Your task to perform on an android device: Go to Reddit.com Image 0: 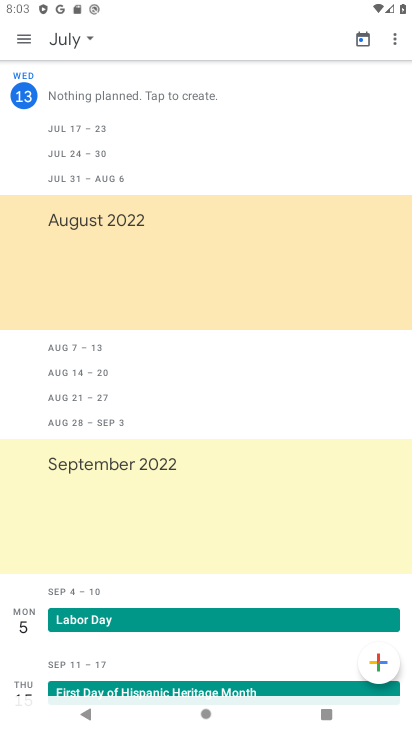
Step 0: press back button
Your task to perform on an android device: Go to Reddit.com Image 1: 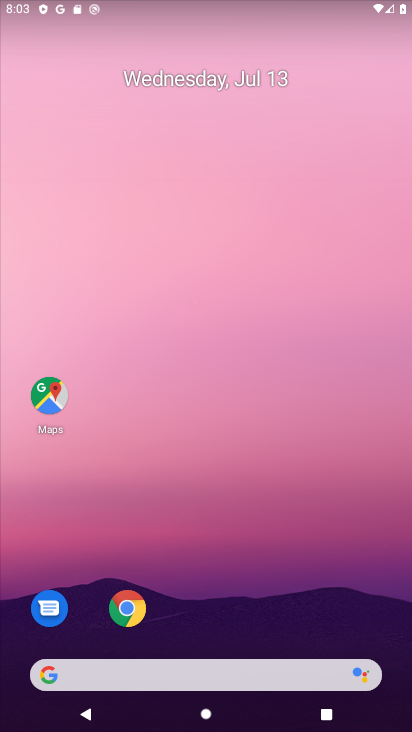
Step 1: drag from (240, 526) to (199, 141)
Your task to perform on an android device: Go to Reddit.com Image 2: 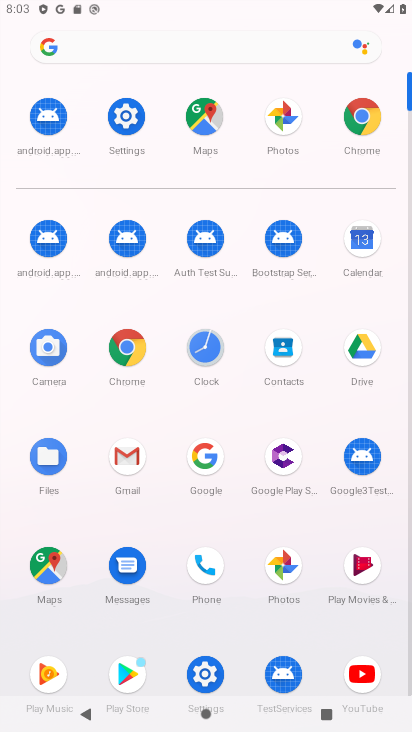
Step 2: click (358, 115)
Your task to perform on an android device: Go to Reddit.com Image 3: 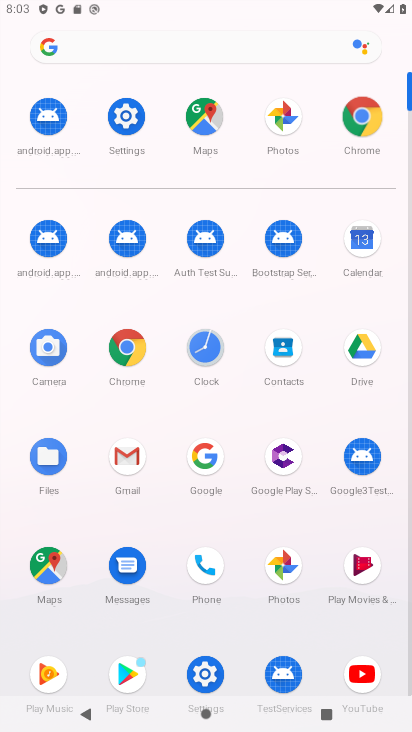
Step 3: click (358, 115)
Your task to perform on an android device: Go to Reddit.com Image 4: 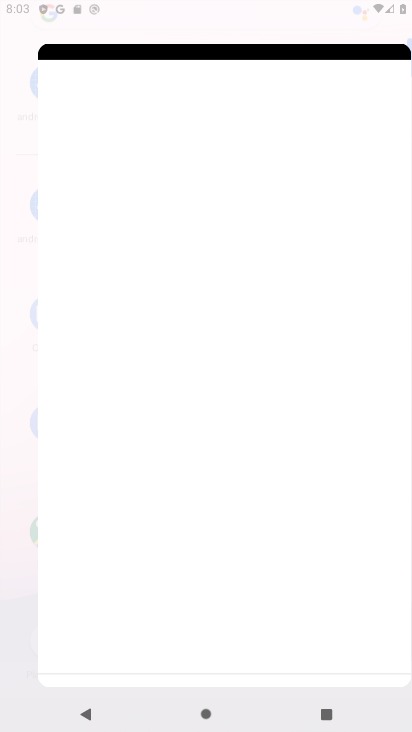
Step 4: click (358, 115)
Your task to perform on an android device: Go to Reddit.com Image 5: 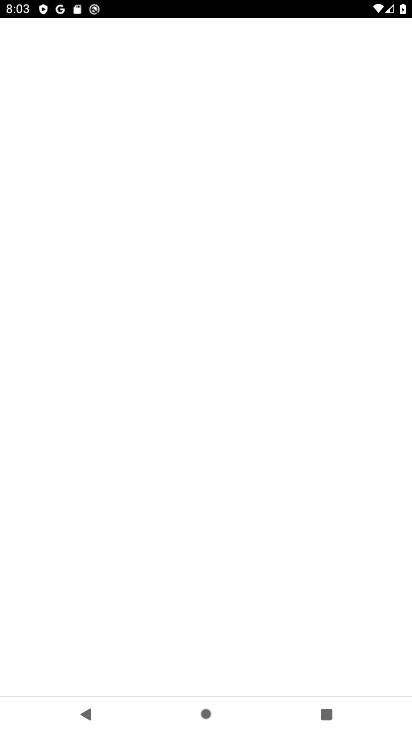
Step 5: click (358, 115)
Your task to perform on an android device: Go to Reddit.com Image 6: 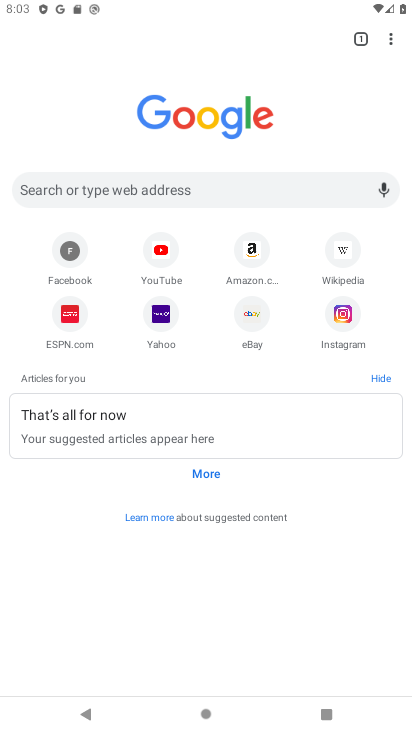
Step 6: click (81, 181)
Your task to perform on an android device: Go to Reddit.com Image 7: 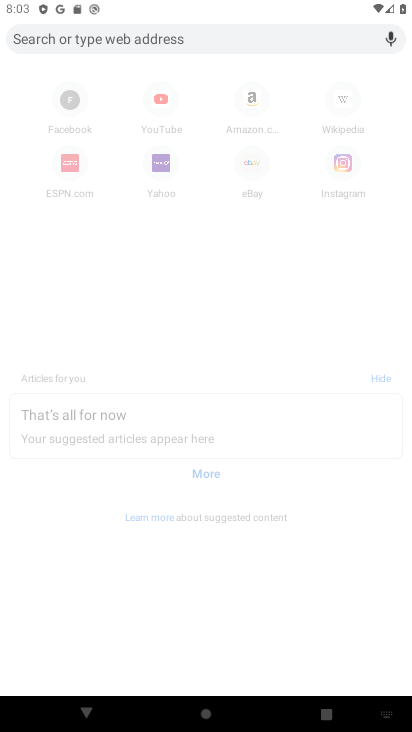
Step 7: type "reddit.com"
Your task to perform on an android device: Go to Reddit.com Image 8: 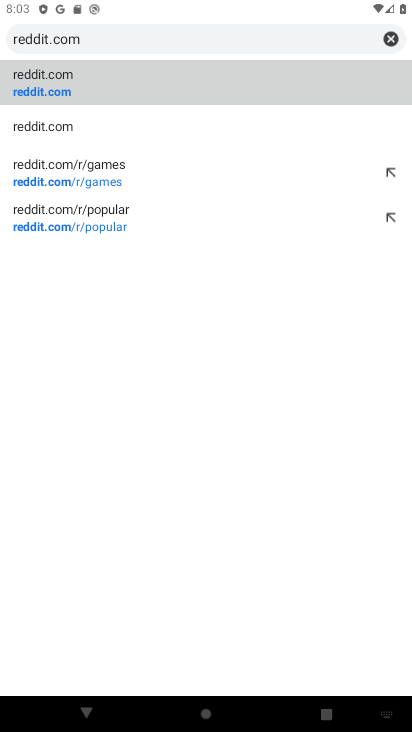
Step 8: click (37, 94)
Your task to perform on an android device: Go to Reddit.com Image 9: 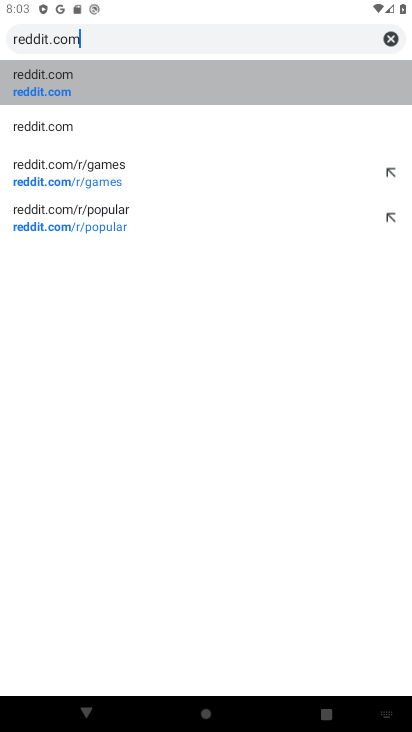
Step 9: click (37, 94)
Your task to perform on an android device: Go to Reddit.com Image 10: 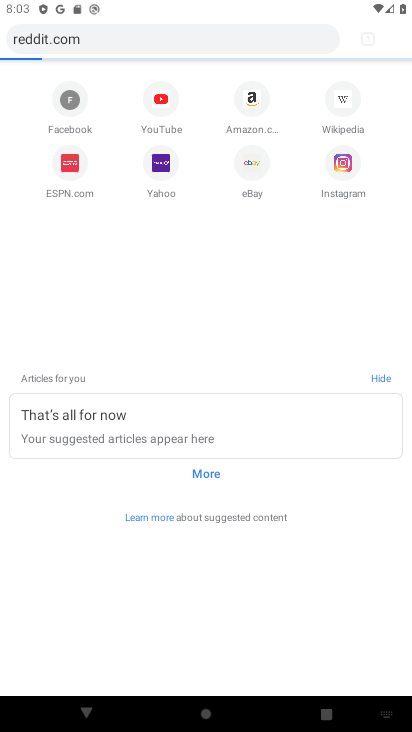
Step 10: click (37, 94)
Your task to perform on an android device: Go to Reddit.com Image 11: 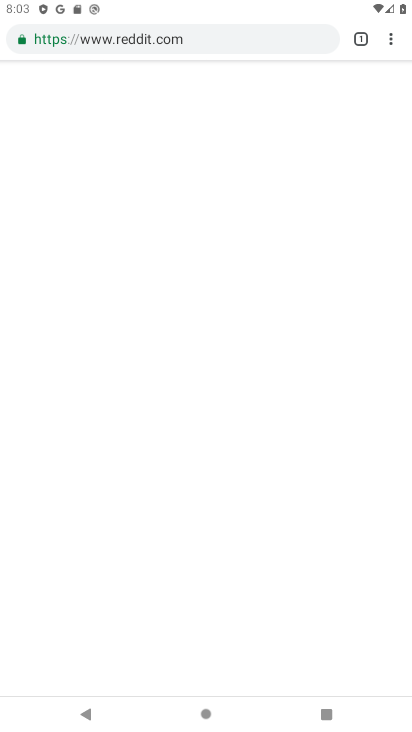
Step 11: task complete